Your task to perform on an android device: Open location settings Image 0: 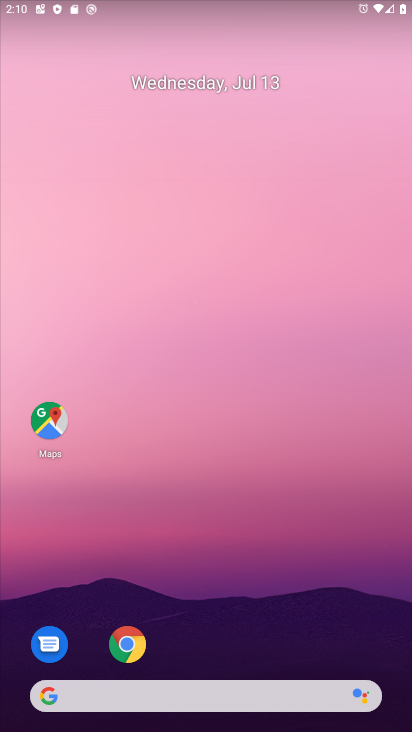
Step 0: drag from (256, 659) to (154, 12)
Your task to perform on an android device: Open location settings Image 1: 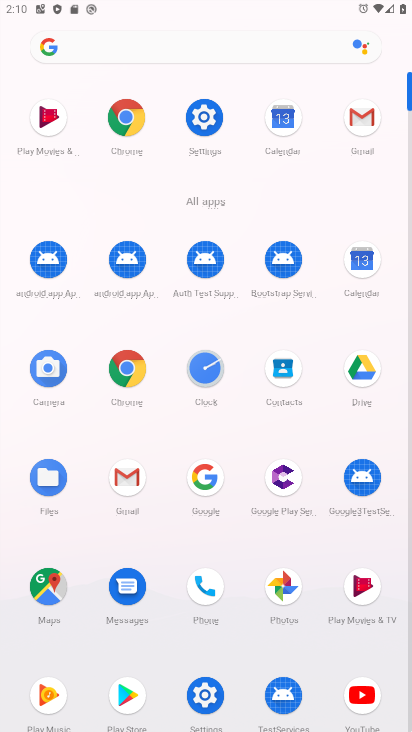
Step 1: click (202, 111)
Your task to perform on an android device: Open location settings Image 2: 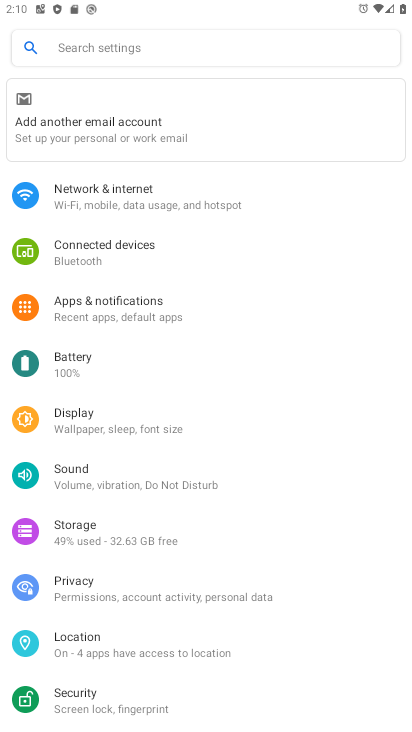
Step 2: click (124, 630)
Your task to perform on an android device: Open location settings Image 3: 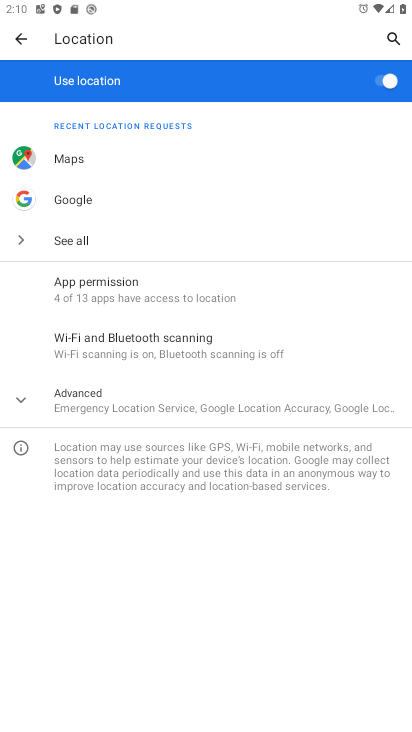
Step 3: click (92, 390)
Your task to perform on an android device: Open location settings Image 4: 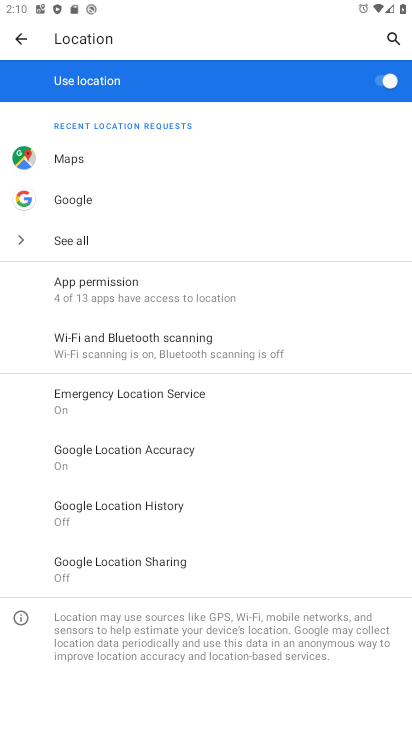
Step 4: task complete